Your task to perform on an android device: turn on showing notifications on the lock screen Image 0: 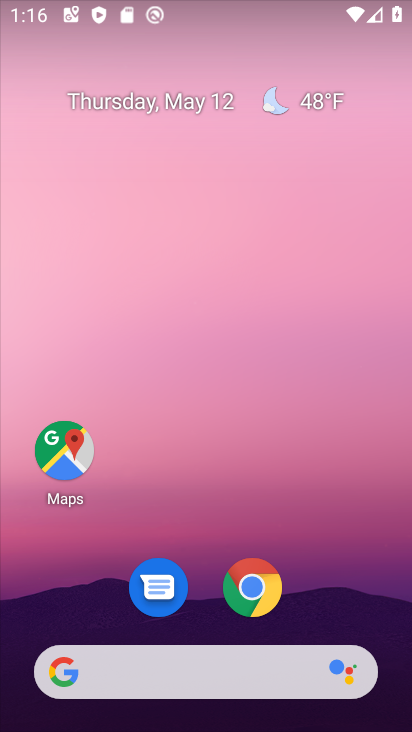
Step 0: drag from (214, 600) to (289, 80)
Your task to perform on an android device: turn on showing notifications on the lock screen Image 1: 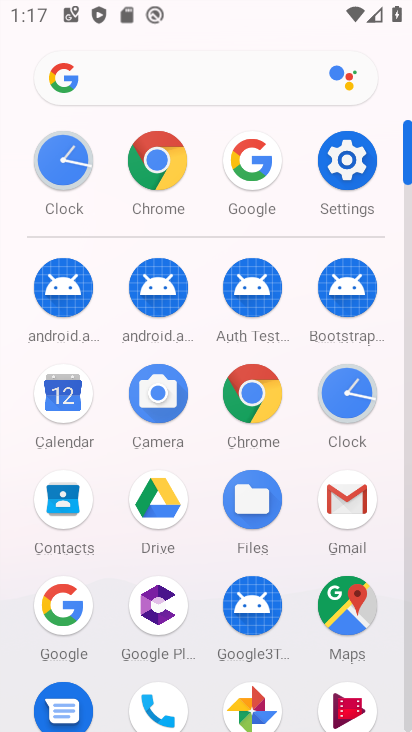
Step 1: click (351, 188)
Your task to perform on an android device: turn on showing notifications on the lock screen Image 2: 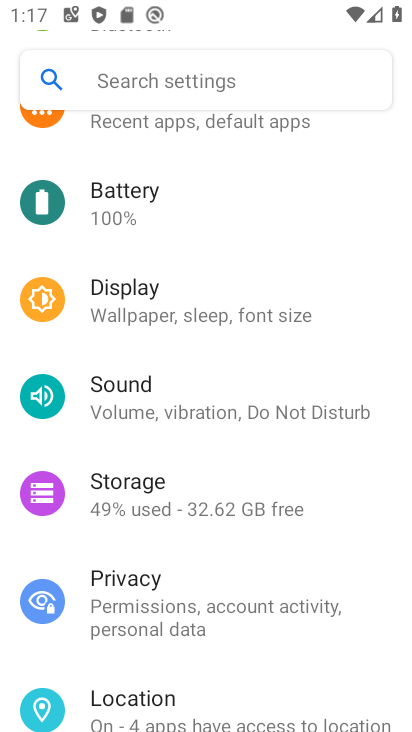
Step 2: drag from (310, 220) to (276, 457)
Your task to perform on an android device: turn on showing notifications on the lock screen Image 3: 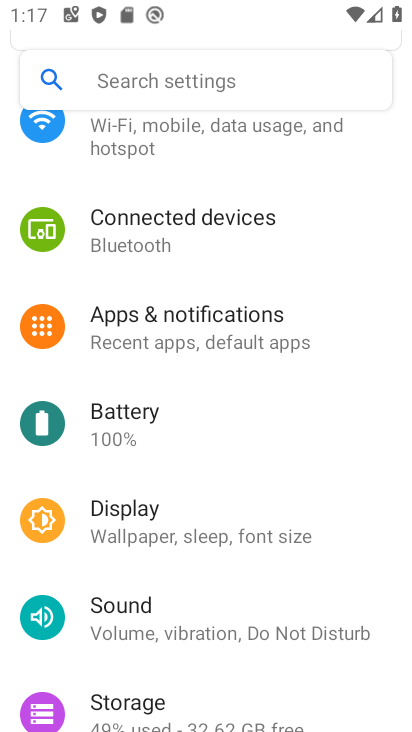
Step 3: click (264, 340)
Your task to perform on an android device: turn on showing notifications on the lock screen Image 4: 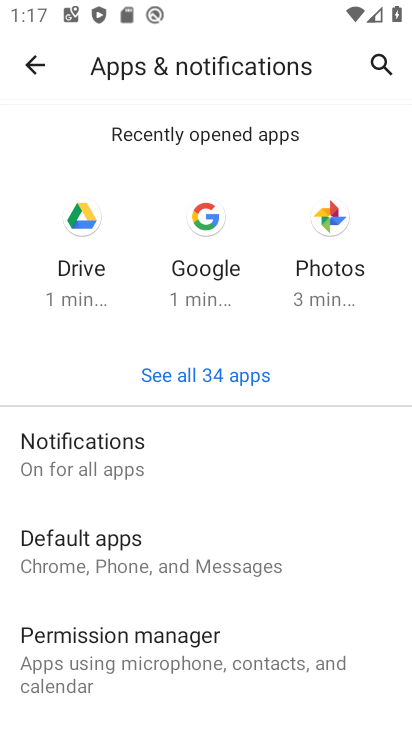
Step 4: drag from (234, 595) to (232, 475)
Your task to perform on an android device: turn on showing notifications on the lock screen Image 5: 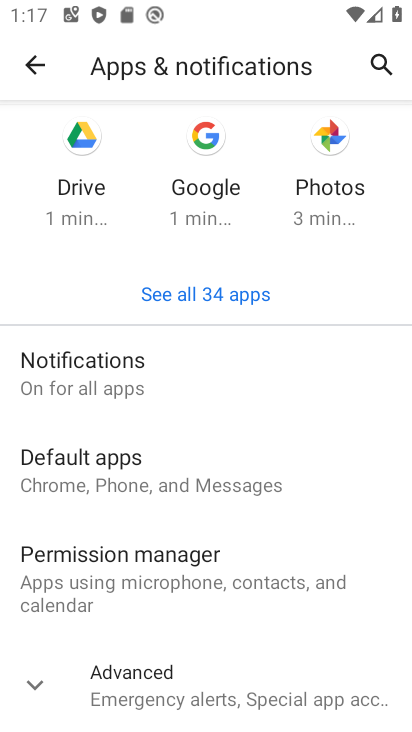
Step 5: drag from (230, 641) to (244, 579)
Your task to perform on an android device: turn on showing notifications on the lock screen Image 6: 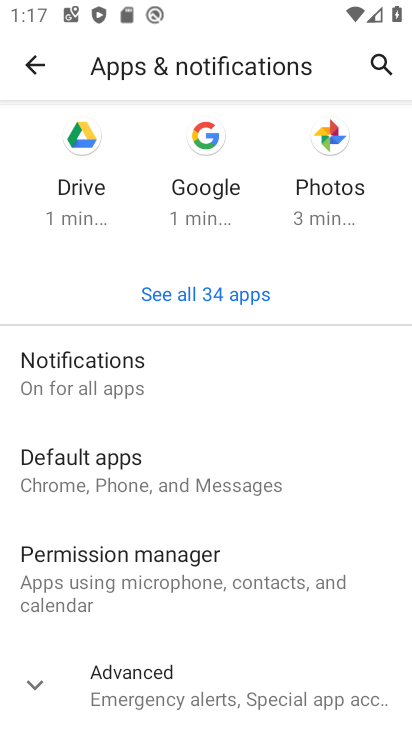
Step 6: click (211, 362)
Your task to perform on an android device: turn on showing notifications on the lock screen Image 7: 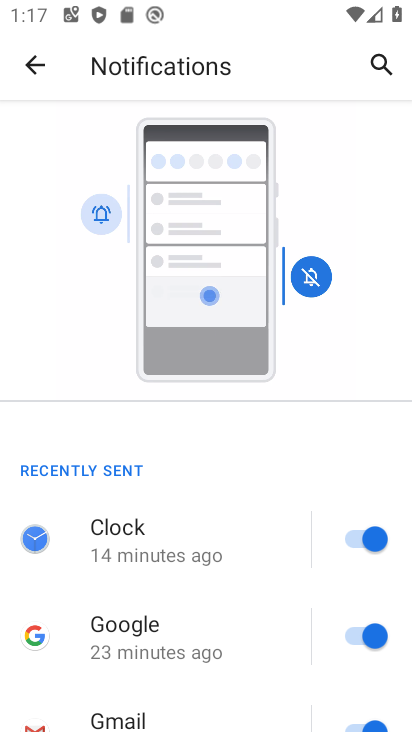
Step 7: drag from (226, 542) to (218, 426)
Your task to perform on an android device: turn on showing notifications on the lock screen Image 8: 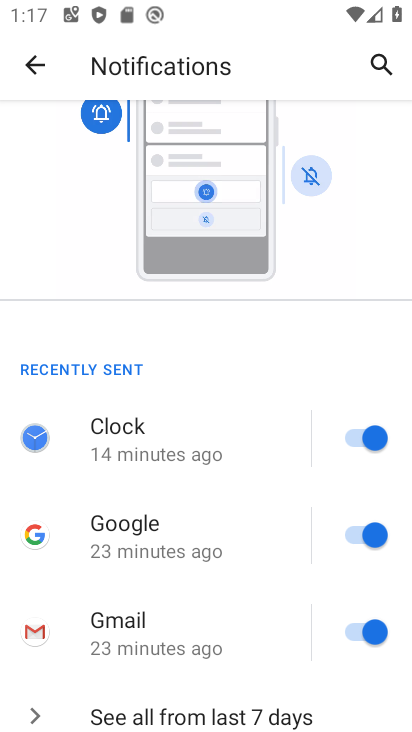
Step 8: drag from (193, 618) to (291, 181)
Your task to perform on an android device: turn on showing notifications on the lock screen Image 9: 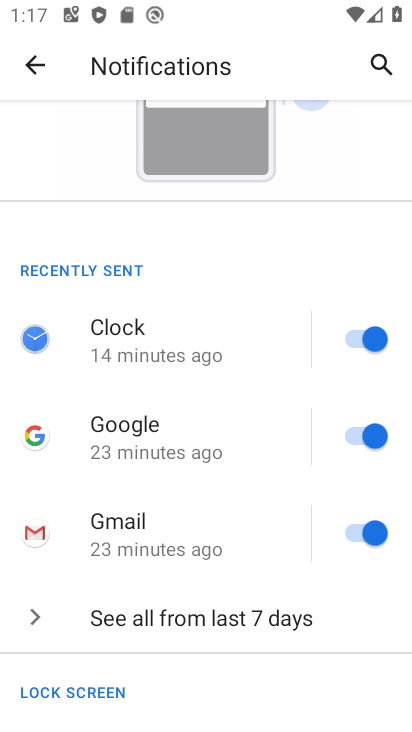
Step 9: drag from (219, 505) to (201, 317)
Your task to perform on an android device: turn on showing notifications on the lock screen Image 10: 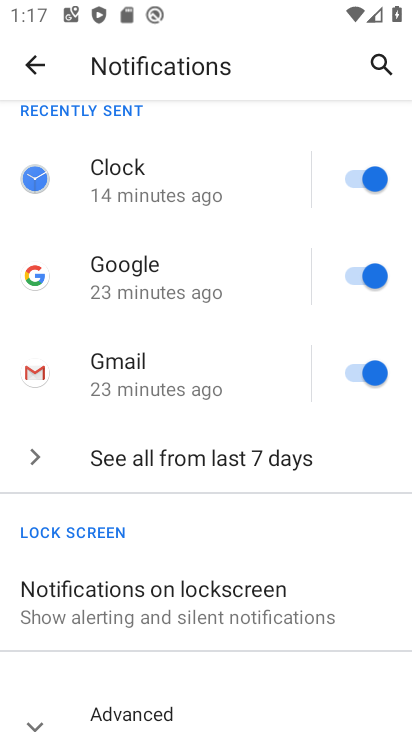
Step 10: click (209, 580)
Your task to perform on an android device: turn on showing notifications on the lock screen Image 11: 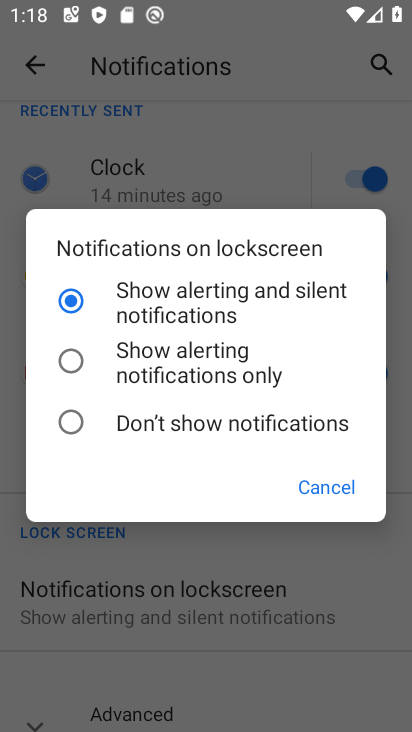
Step 11: task complete